Your task to perform on an android device: open a new tab in the chrome app Image 0: 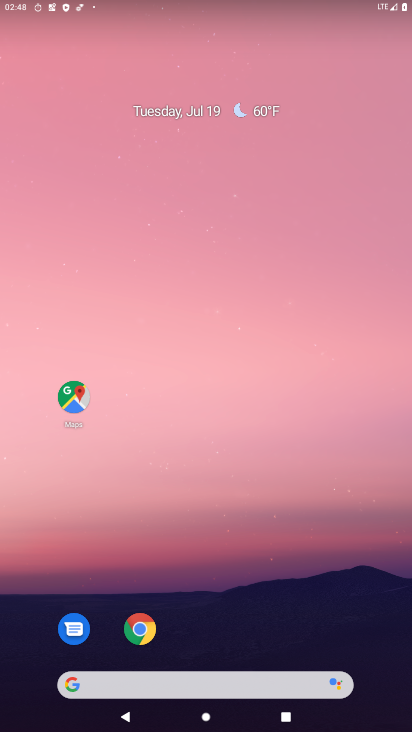
Step 0: click (147, 640)
Your task to perform on an android device: open a new tab in the chrome app Image 1: 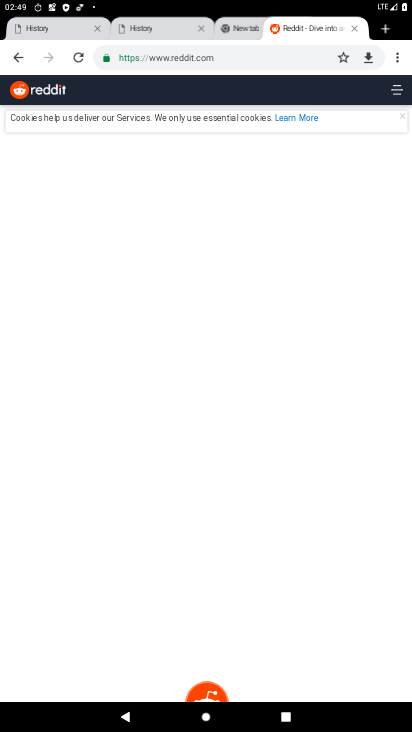
Step 1: click (388, 29)
Your task to perform on an android device: open a new tab in the chrome app Image 2: 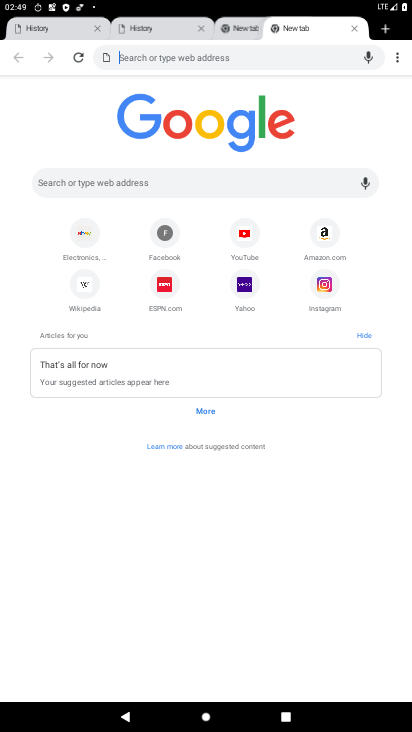
Step 2: task complete